Your task to perform on an android device: Search for "rayovac triple a" on walmart.com, select the first entry, add it to the cart, then select checkout. Image 0: 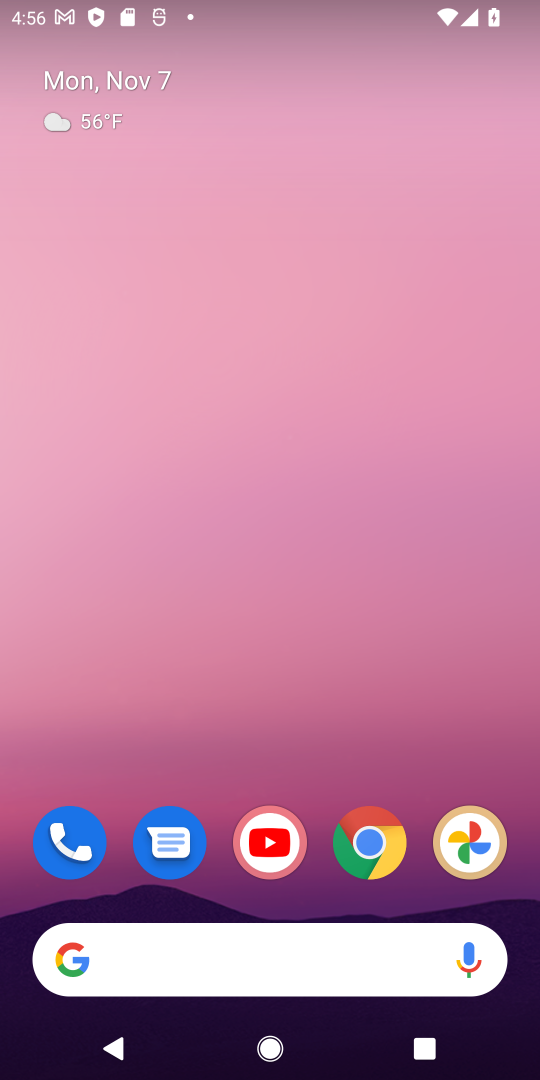
Step 0: click (371, 841)
Your task to perform on an android device: Search for "rayovac triple a" on walmart.com, select the first entry, add it to the cart, then select checkout. Image 1: 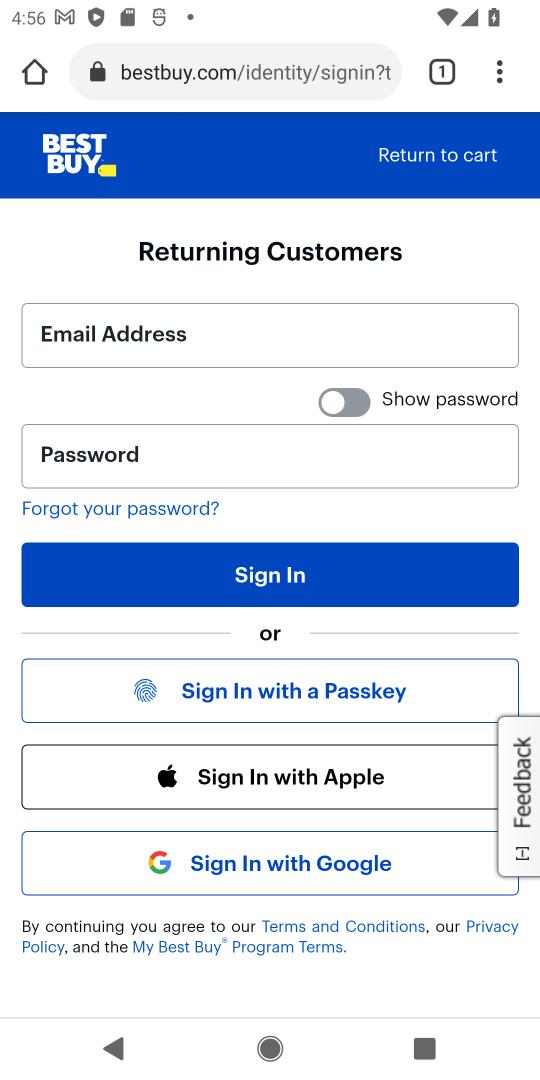
Step 1: click (279, 64)
Your task to perform on an android device: Search for "rayovac triple a" on walmart.com, select the first entry, add it to the cart, then select checkout. Image 2: 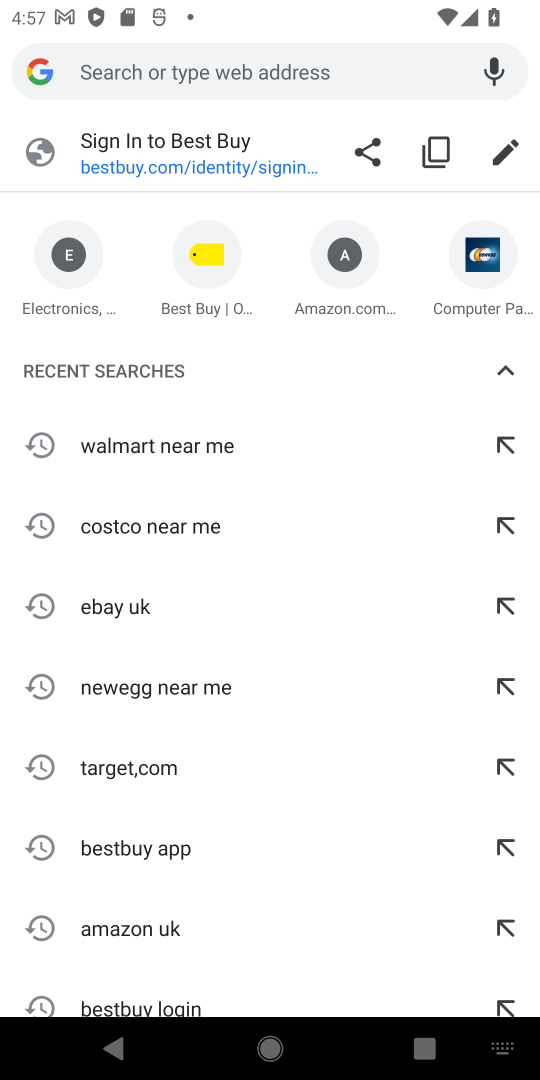
Step 2: type " walmart.com"
Your task to perform on an android device: Search for "rayovac triple a" on walmart.com, select the first entry, add it to the cart, then select checkout. Image 3: 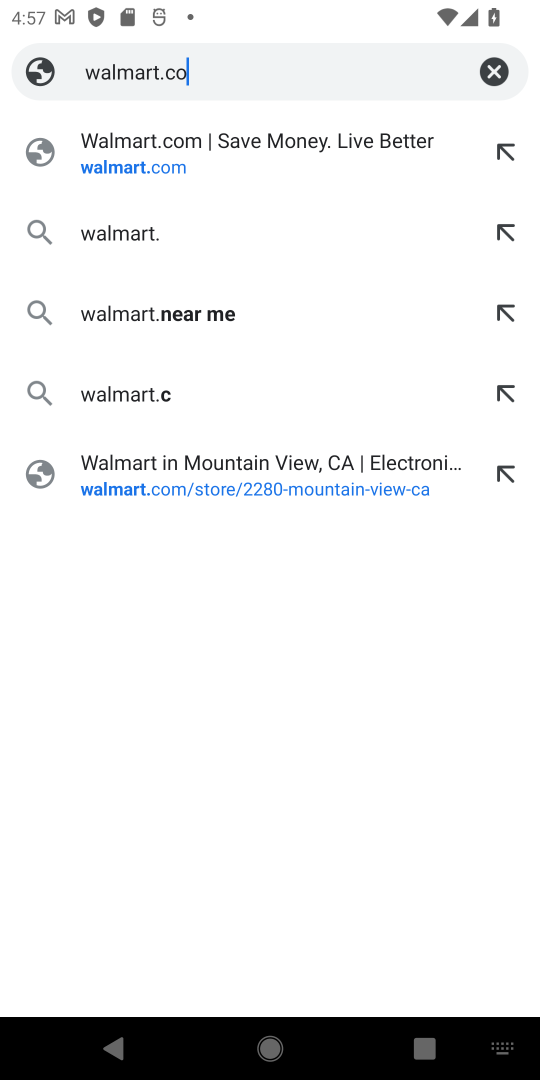
Step 3: press enter
Your task to perform on an android device: Search for "rayovac triple a" on walmart.com, select the first entry, add it to the cart, then select checkout. Image 4: 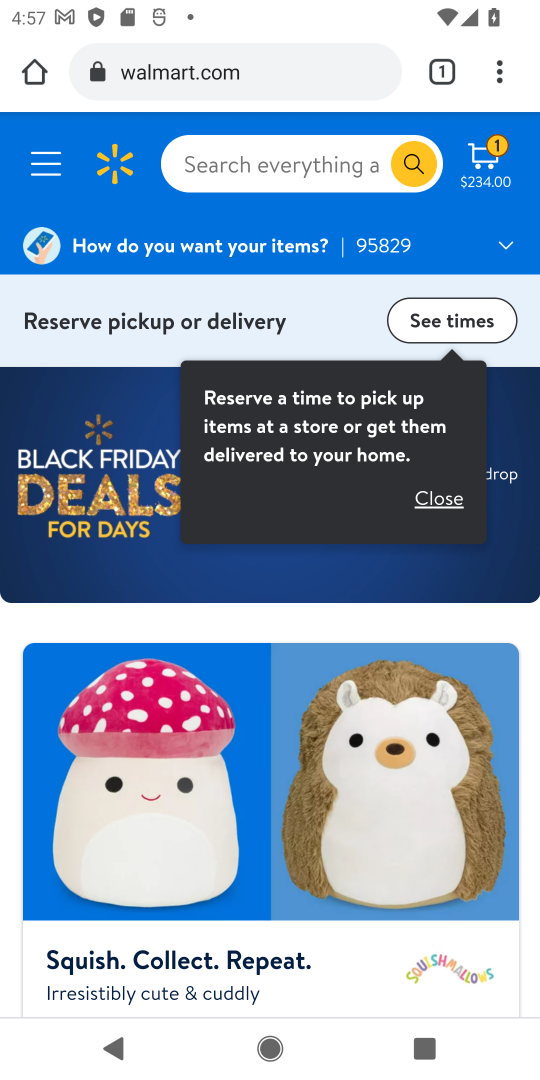
Step 4: click (337, 158)
Your task to perform on an android device: Search for "rayovac triple a" on walmart.com, select the first entry, add it to the cart, then select checkout. Image 5: 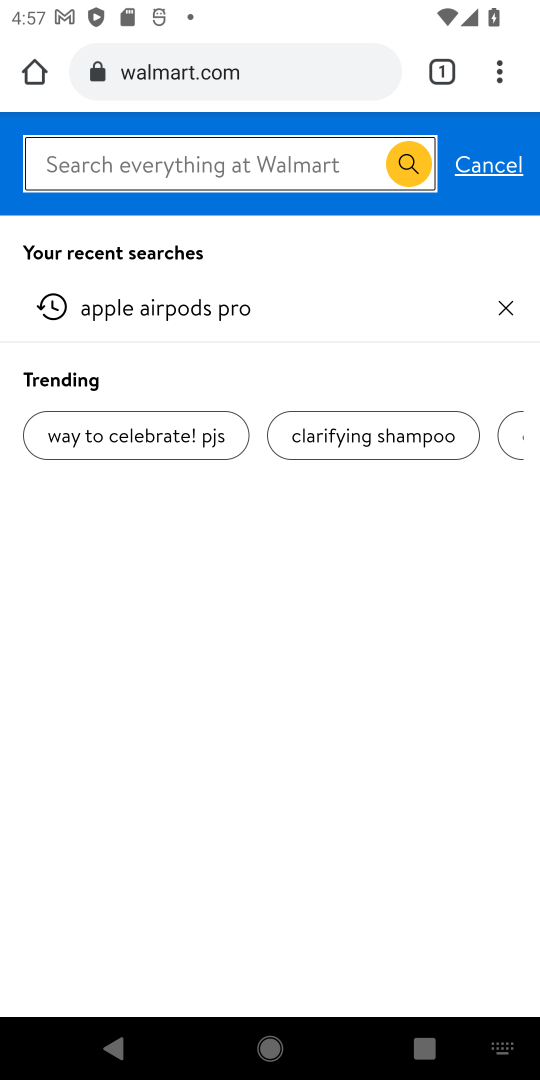
Step 5: type "rayovac triple a"
Your task to perform on an android device: Search for "rayovac triple a" on walmart.com, select the first entry, add it to the cart, then select checkout. Image 6: 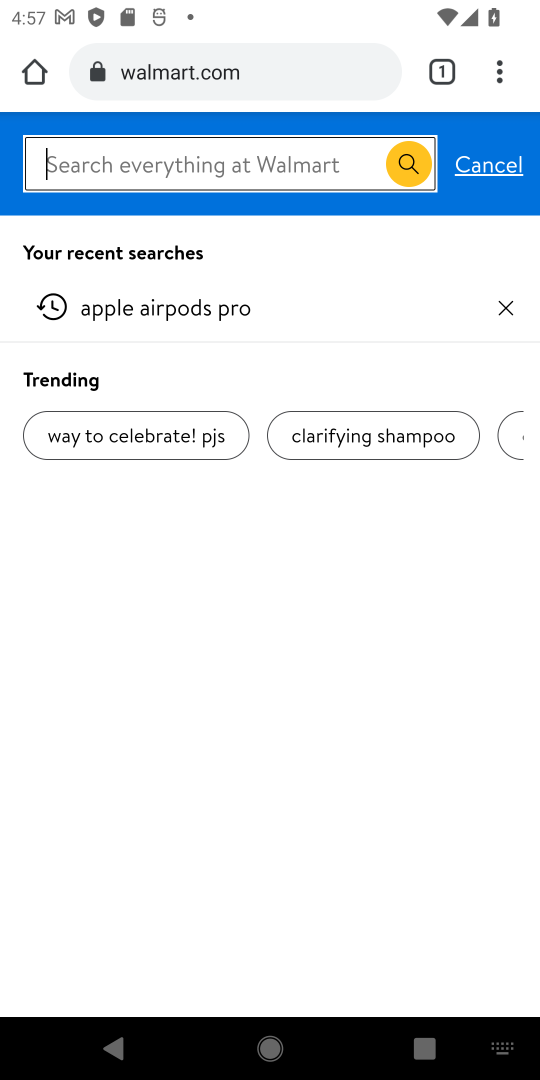
Step 6: press enter
Your task to perform on an android device: Search for "rayovac triple a" on walmart.com, select the first entry, add it to the cart, then select checkout. Image 7: 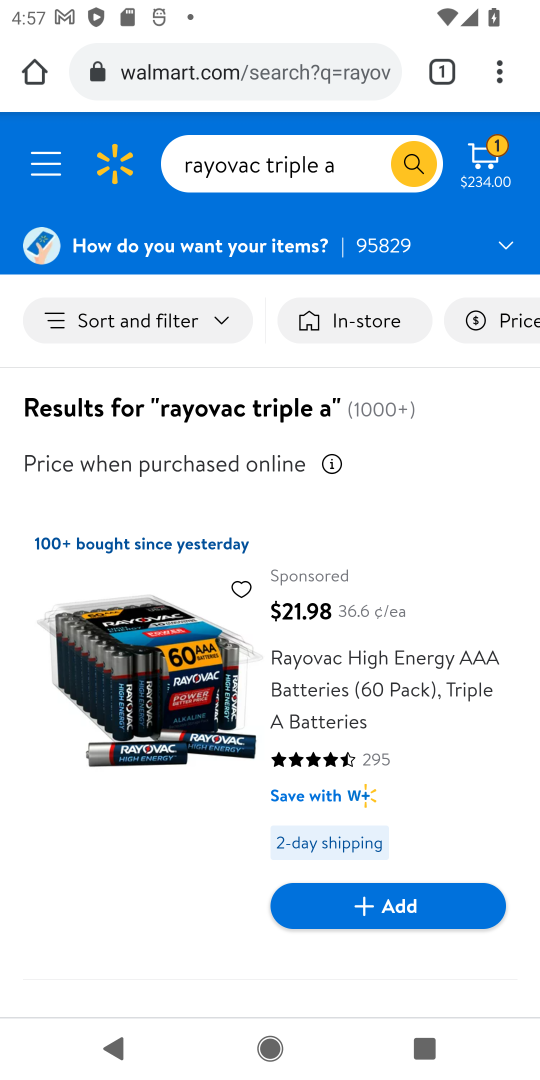
Step 7: click (407, 907)
Your task to perform on an android device: Search for "rayovac triple a" on walmart.com, select the first entry, add it to the cart, then select checkout. Image 8: 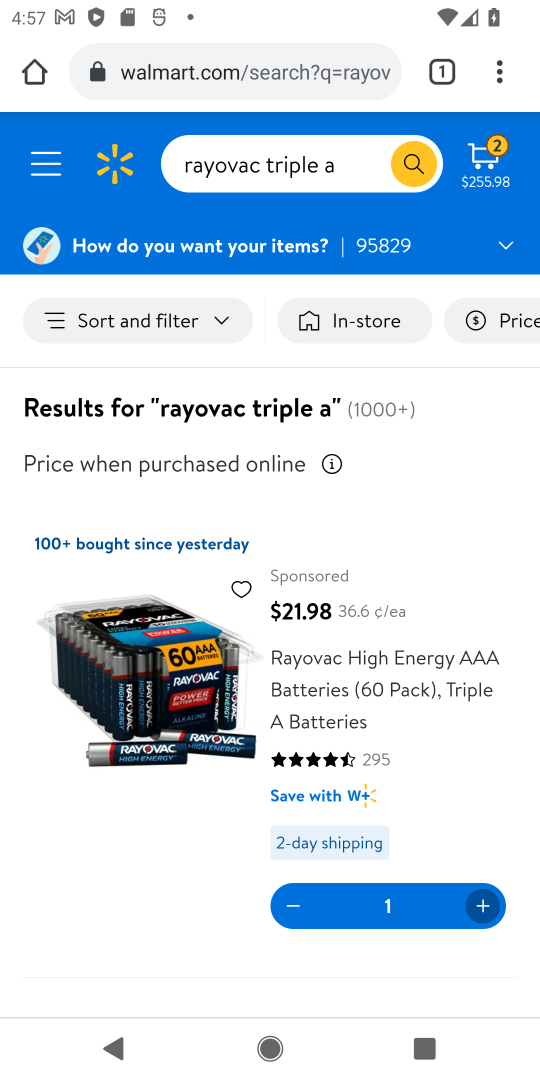
Step 8: click (474, 152)
Your task to perform on an android device: Search for "rayovac triple a" on walmart.com, select the first entry, add it to the cart, then select checkout. Image 9: 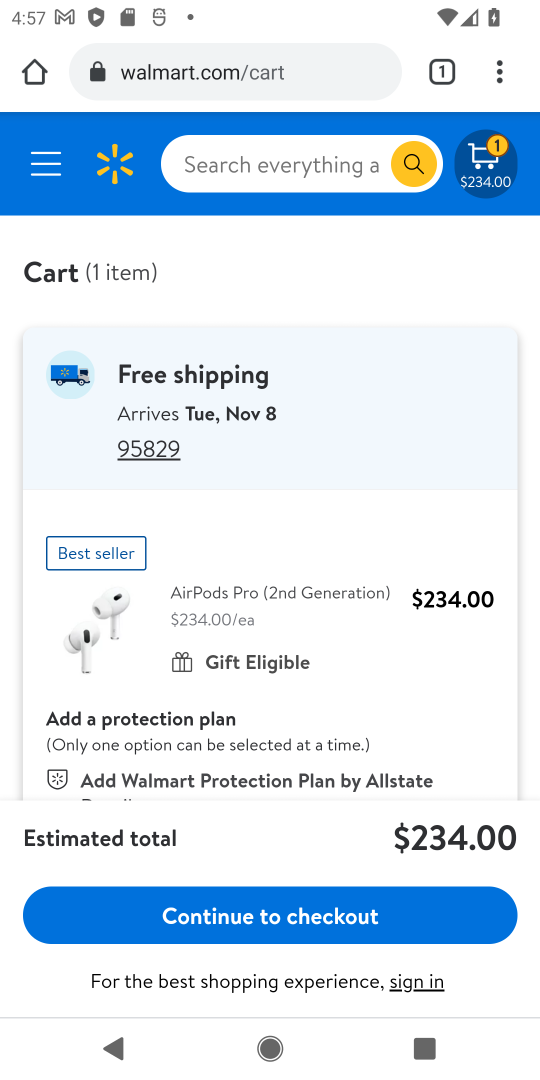
Step 9: drag from (288, 730) to (316, 390)
Your task to perform on an android device: Search for "rayovac triple a" on walmart.com, select the first entry, add it to the cart, then select checkout. Image 10: 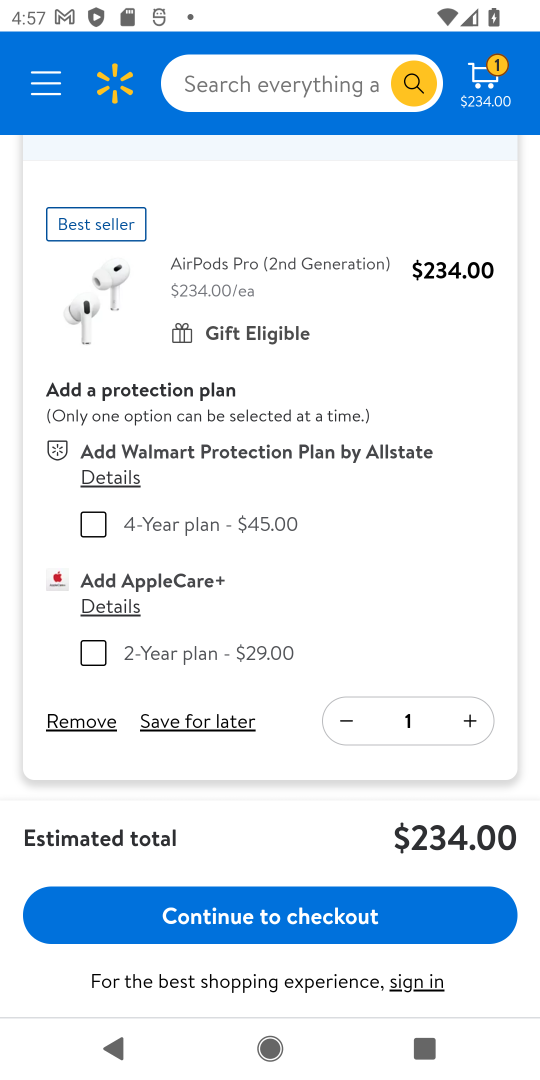
Step 10: click (93, 714)
Your task to perform on an android device: Search for "rayovac triple a" on walmart.com, select the first entry, add it to the cart, then select checkout. Image 11: 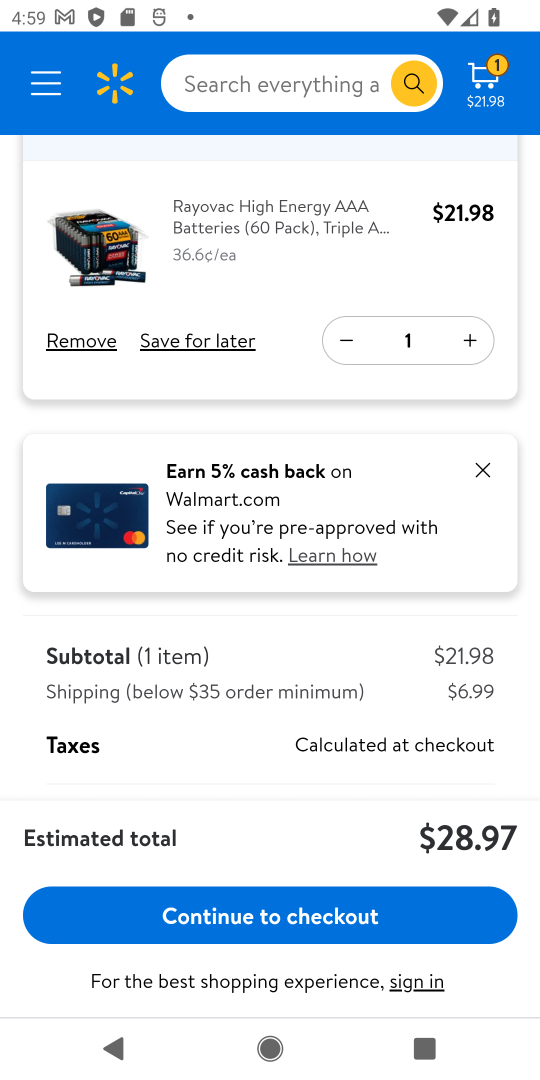
Step 11: click (263, 911)
Your task to perform on an android device: Search for "rayovac triple a" on walmart.com, select the first entry, add it to the cart, then select checkout. Image 12: 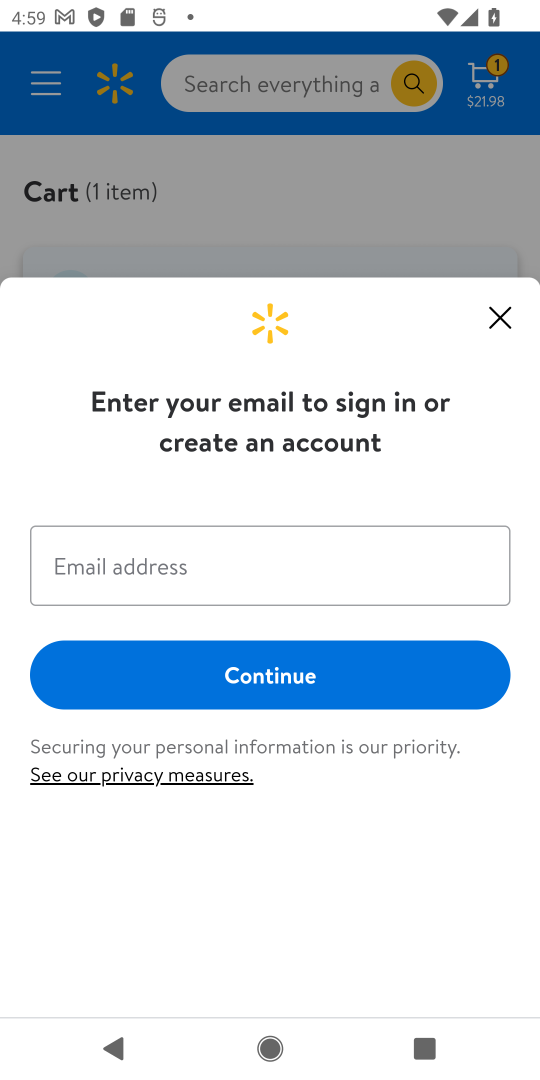
Step 12: task complete